Your task to perform on an android device: move a message to another label in the gmail app Image 0: 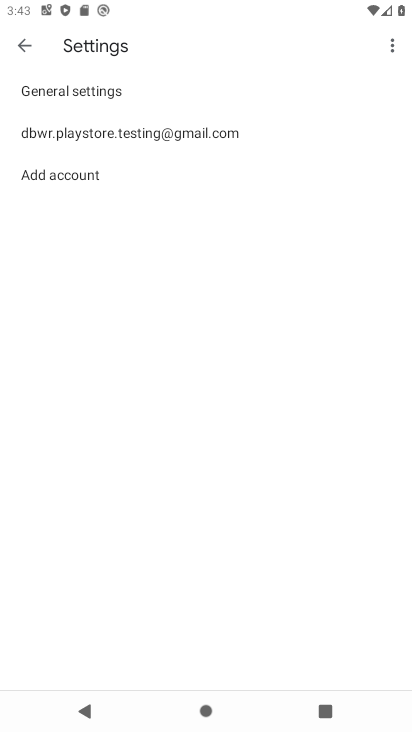
Step 0: press home button
Your task to perform on an android device: move a message to another label in the gmail app Image 1: 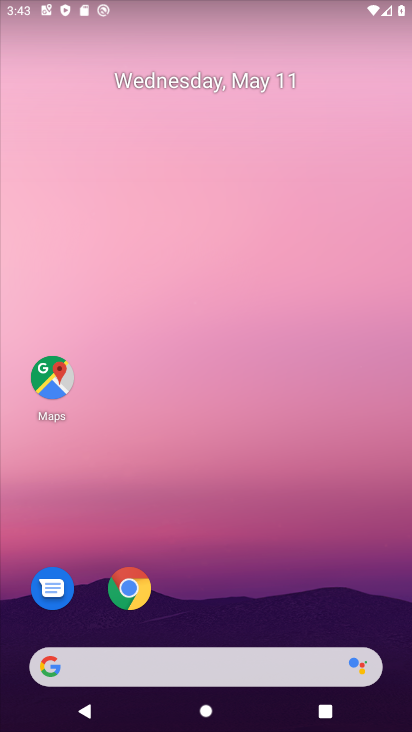
Step 1: drag from (176, 535) to (236, 104)
Your task to perform on an android device: move a message to another label in the gmail app Image 2: 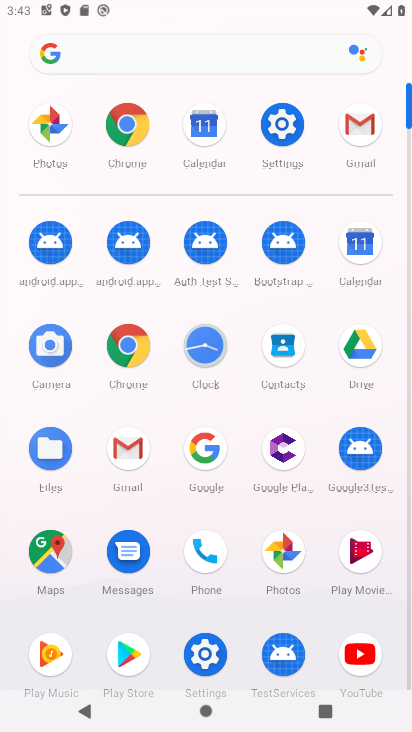
Step 2: click (134, 468)
Your task to perform on an android device: move a message to another label in the gmail app Image 3: 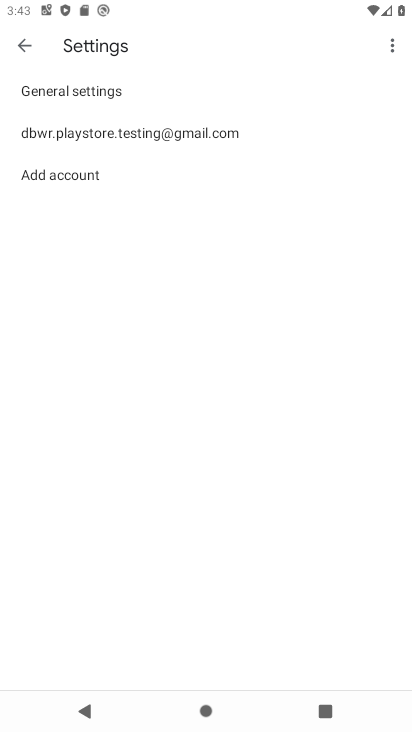
Step 3: click (14, 40)
Your task to perform on an android device: move a message to another label in the gmail app Image 4: 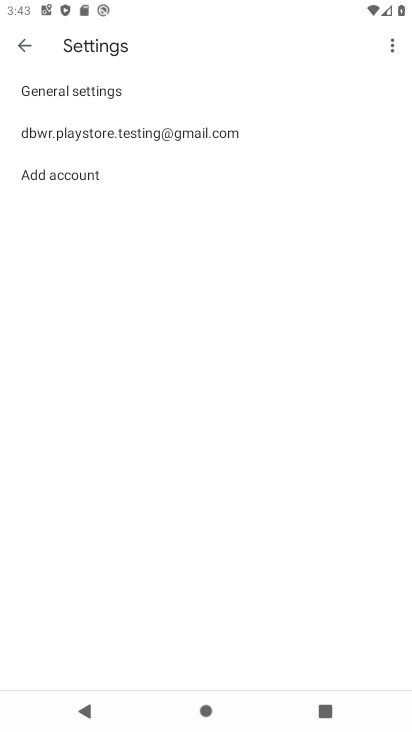
Step 4: click (31, 49)
Your task to perform on an android device: move a message to another label in the gmail app Image 5: 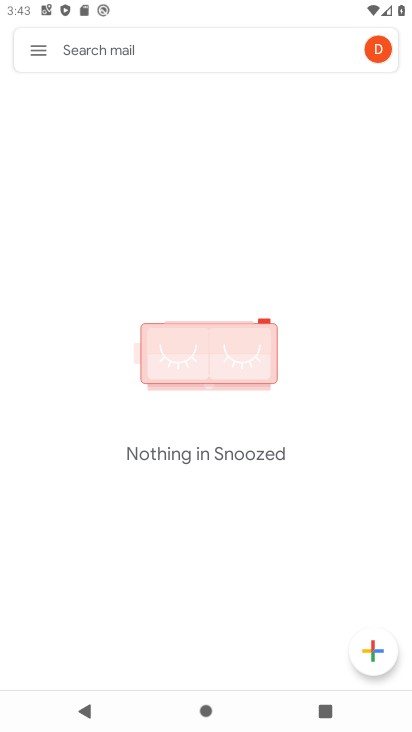
Step 5: click (32, 36)
Your task to perform on an android device: move a message to another label in the gmail app Image 6: 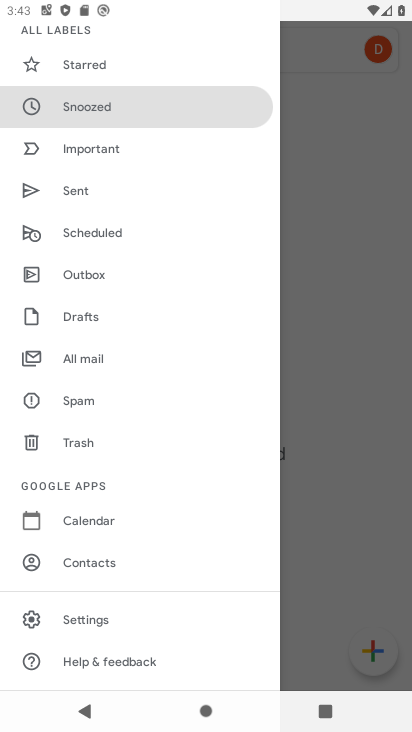
Step 6: click (83, 363)
Your task to perform on an android device: move a message to another label in the gmail app Image 7: 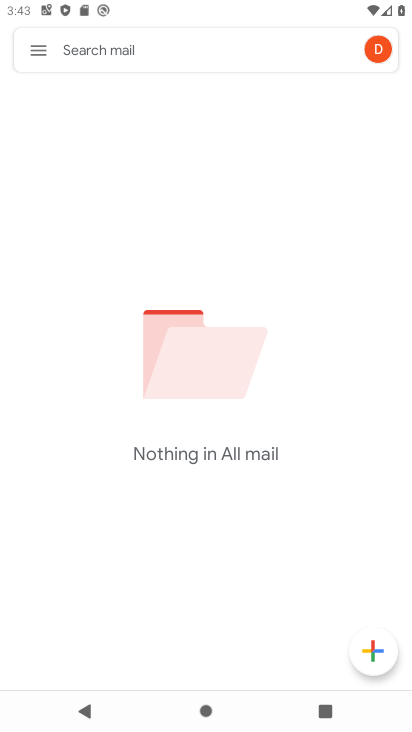
Step 7: task complete